Your task to perform on an android device: Open wifi settings Image 0: 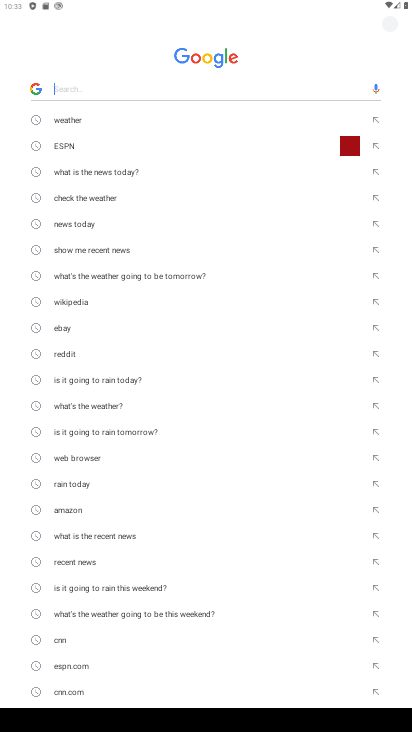
Step 0: press home button
Your task to perform on an android device: Open wifi settings Image 1: 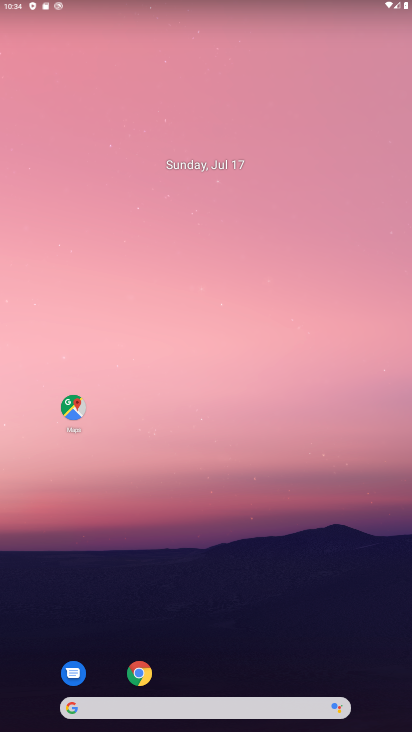
Step 1: drag from (204, 678) to (229, 30)
Your task to perform on an android device: Open wifi settings Image 2: 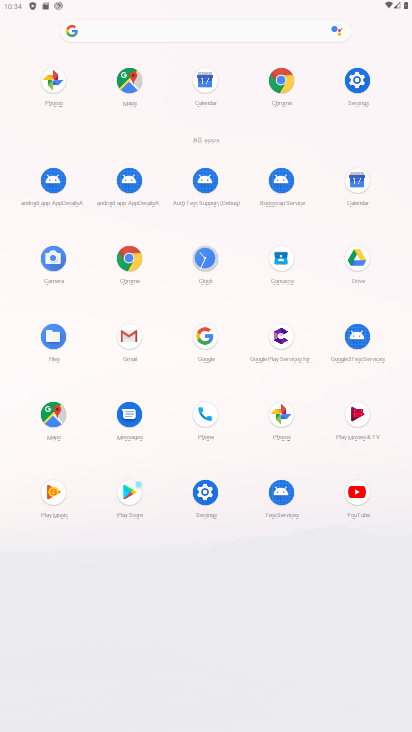
Step 2: click (362, 78)
Your task to perform on an android device: Open wifi settings Image 3: 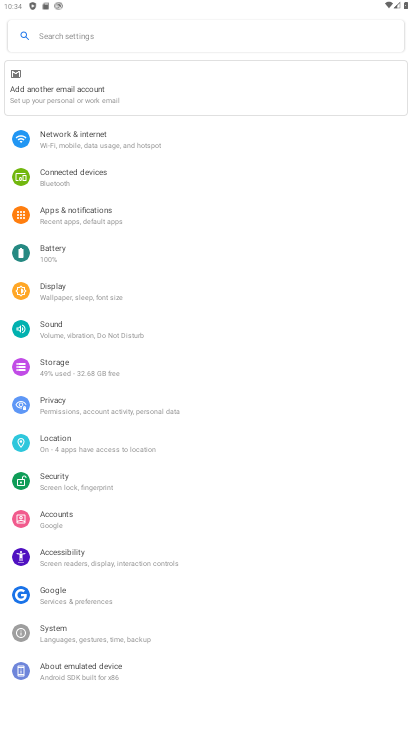
Step 3: click (111, 135)
Your task to perform on an android device: Open wifi settings Image 4: 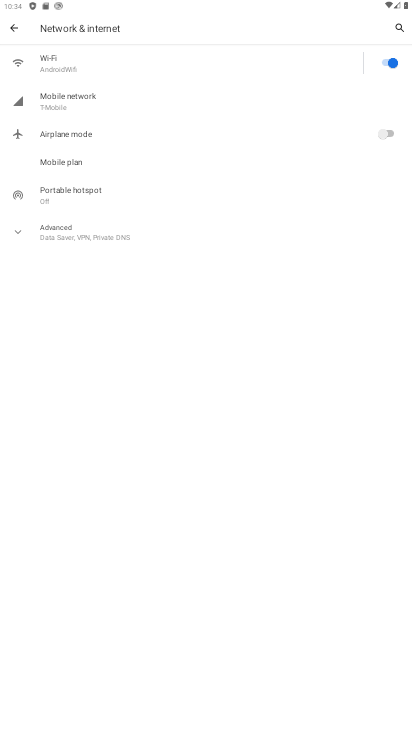
Step 4: click (145, 62)
Your task to perform on an android device: Open wifi settings Image 5: 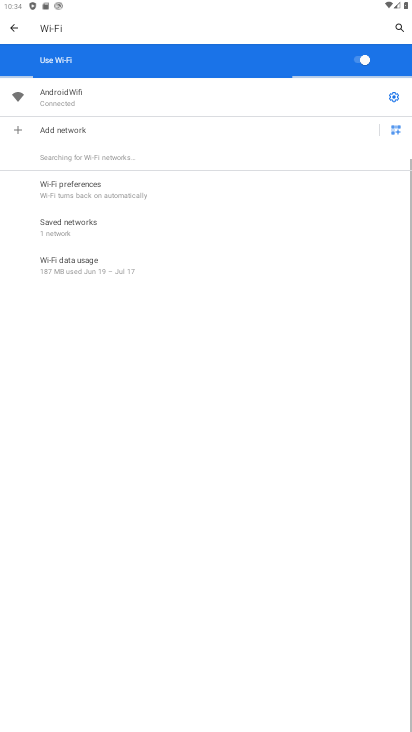
Step 5: click (193, 96)
Your task to perform on an android device: Open wifi settings Image 6: 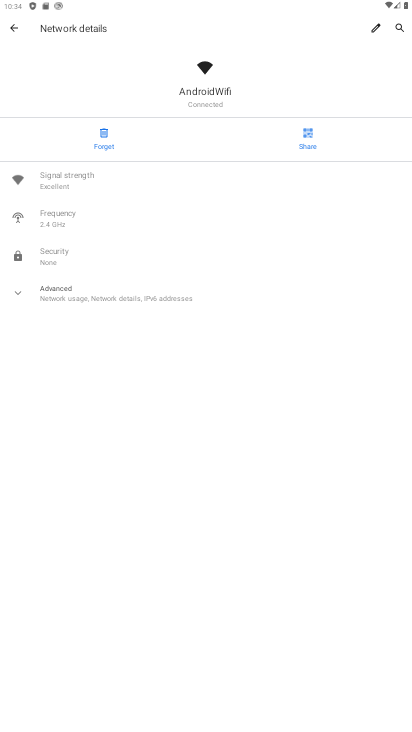
Step 6: task complete